Your task to perform on an android device: Open notification settings Image 0: 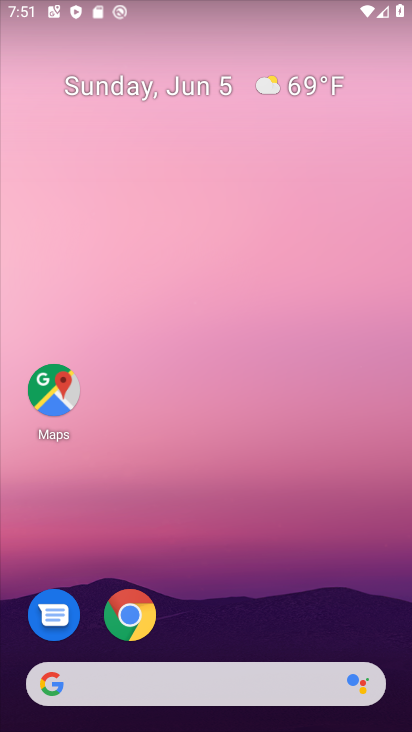
Step 0: drag from (191, 614) to (115, 0)
Your task to perform on an android device: Open notification settings Image 1: 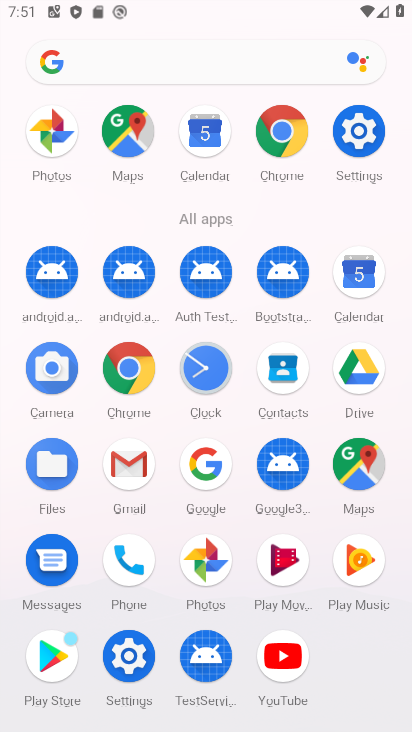
Step 1: click (352, 136)
Your task to perform on an android device: Open notification settings Image 2: 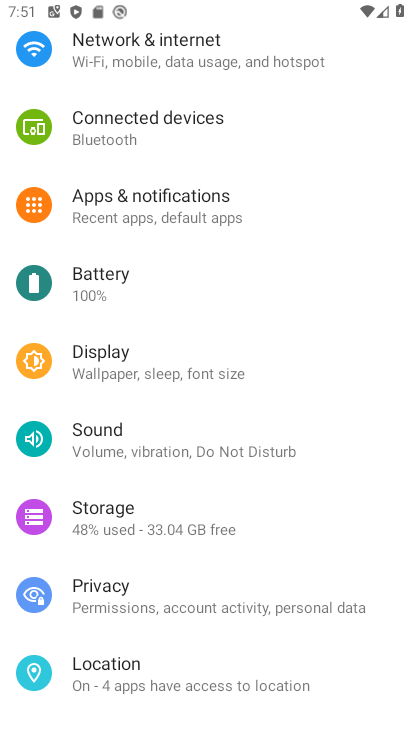
Step 2: click (186, 220)
Your task to perform on an android device: Open notification settings Image 3: 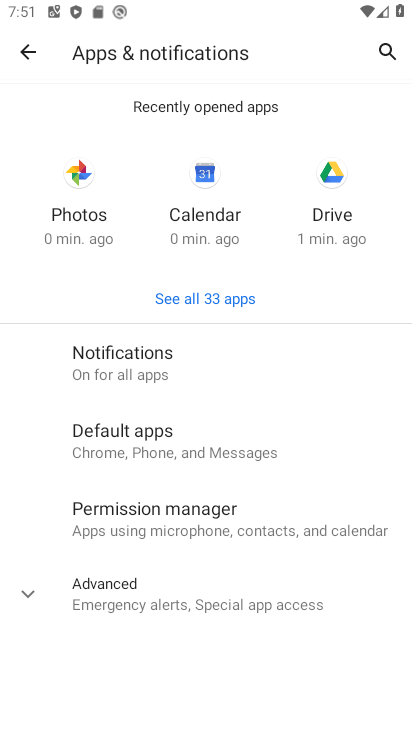
Step 3: task complete